Your task to perform on an android device: Open the calendar and show me this week's events? Image 0: 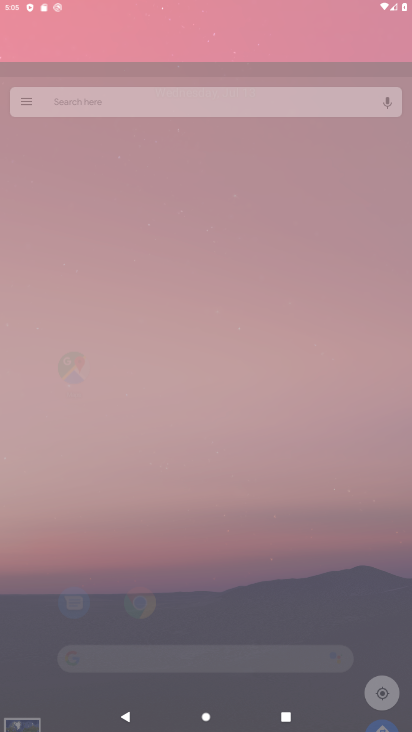
Step 0: press back button
Your task to perform on an android device: Open the calendar and show me this week's events? Image 1: 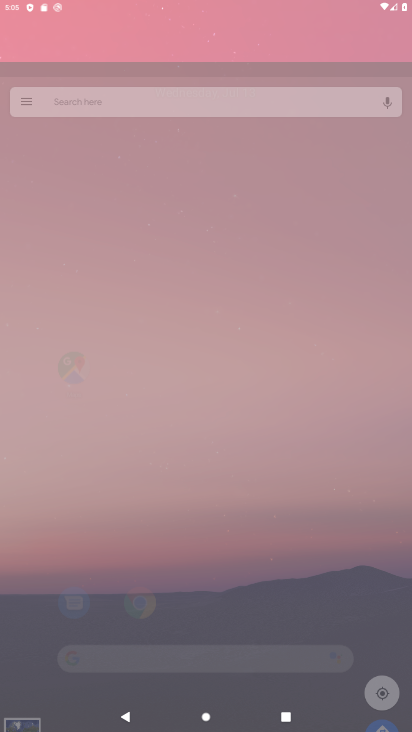
Step 1: press home button
Your task to perform on an android device: Open the calendar and show me this week's events? Image 2: 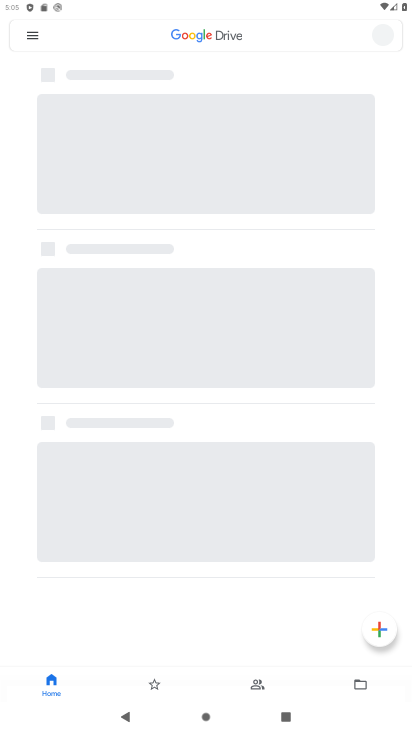
Step 2: click (160, 68)
Your task to perform on an android device: Open the calendar and show me this week's events? Image 3: 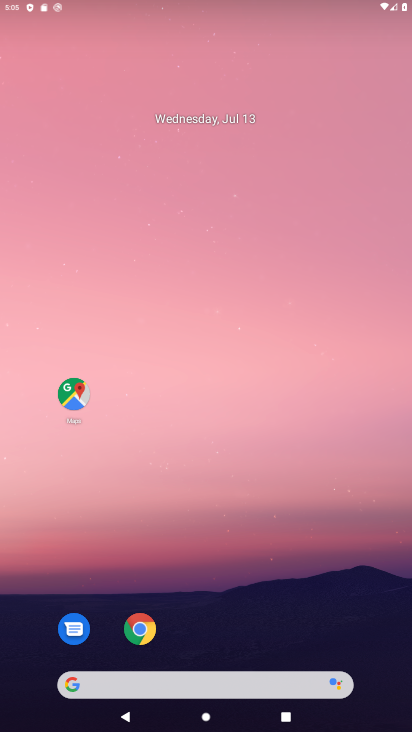
Step 3: press home button
Your task to perform on an android device: Open the calendar and show me this week's events? Image 4: 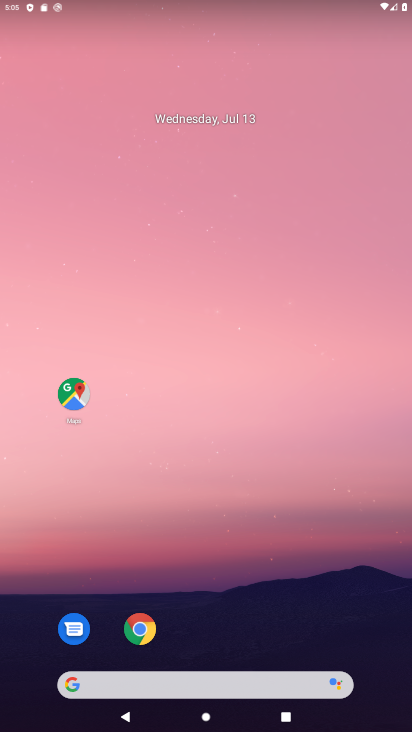
Step 4: press back button
Your task to perform on an android device: Open the calendar and show me this week's events? Image 5: 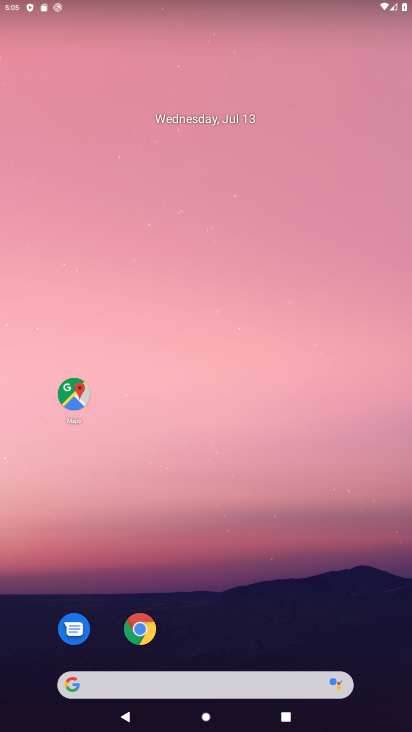
Step 5: drag from (228, 674) to (161, 281)
Your task to perform on an android device: Open the calendar and show me this week's events? Image 6: 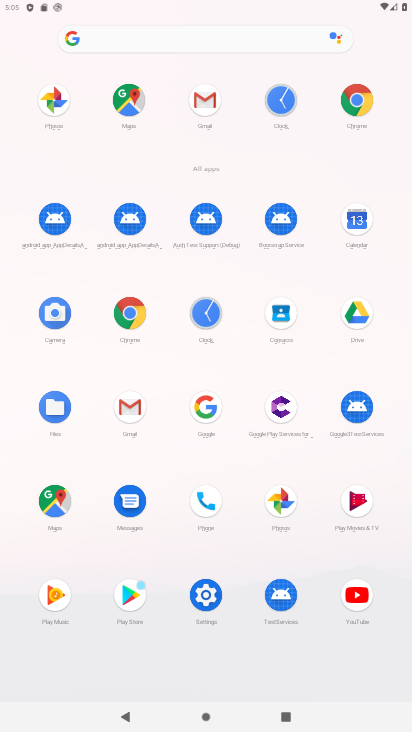
Step 6: click (361, 225)
Your task to perform on an android device: Open the calendar and show me this week's events? Image 7: 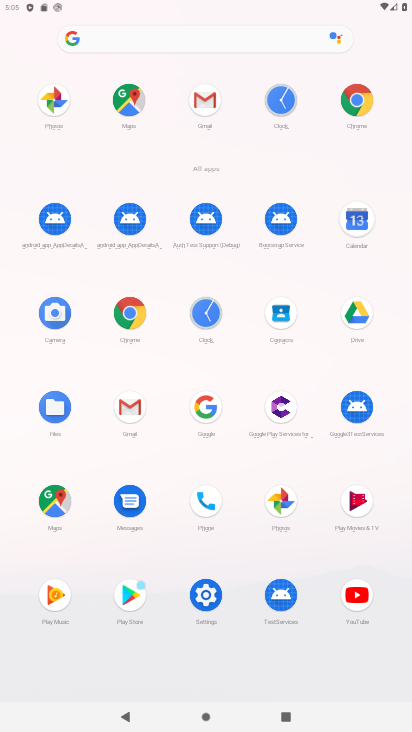
Step 7: click (361, 225)
Your task to perform on an android device: Open the calendar and show me this week's events? Image 8: 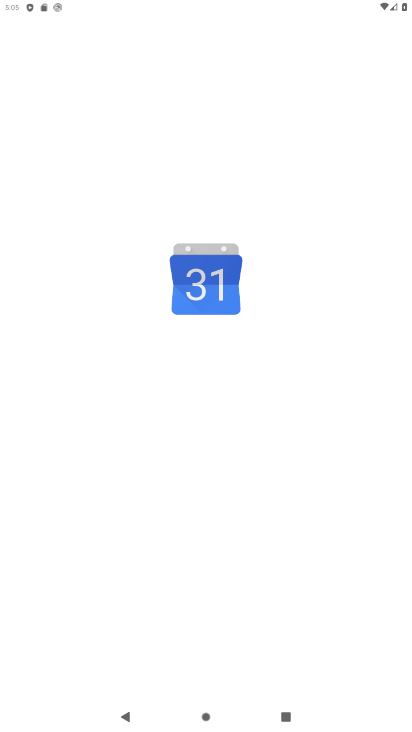
Step 8: click (362, 219)
Your task to perform on an android device: Open the calendar and show me this week's events? Image 9: 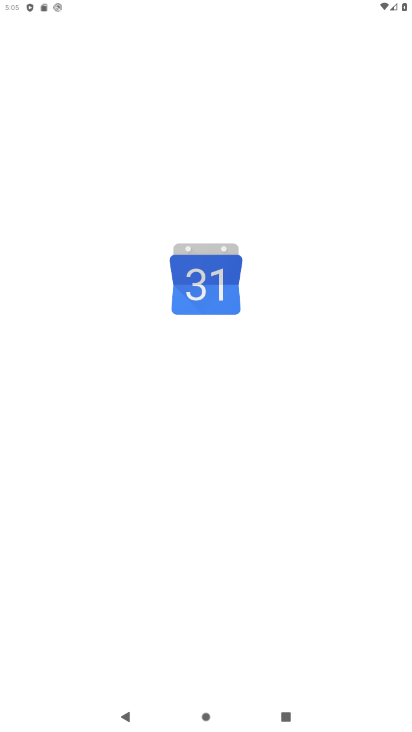
Step 9: click (359, 218)
Your task to perform on an android device: Open the calendar and show me this week's events? Image 10: 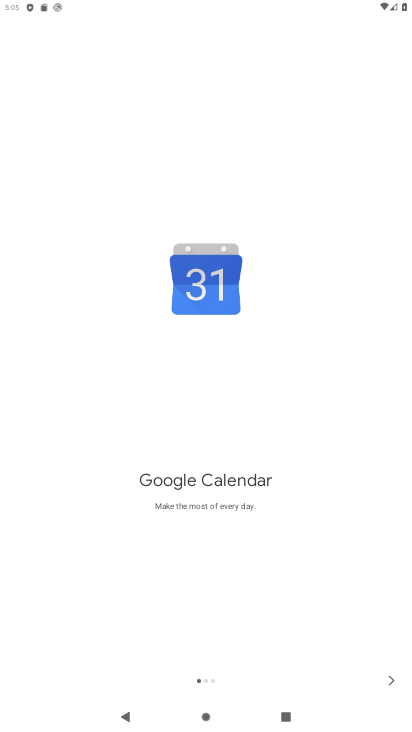
Step 10: click (388, 677)
Your task to perform on an android device: Open the calendar and show me this week's events? Image 11: 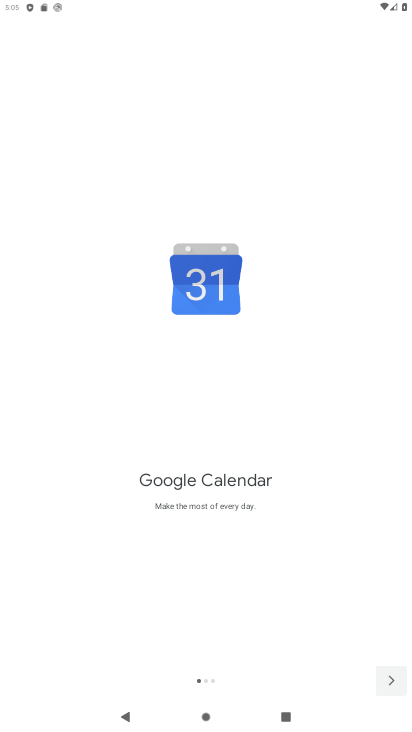
Step 11: click (388, 677)
Your task to perform on an android device: Open the calendar and show me this week's events? Image 12: 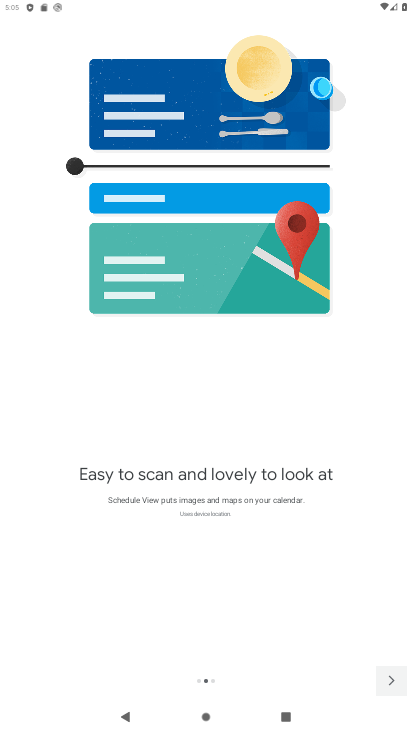
Step 12: click (389, 679)
Your task to perform on an android device: Open the calendar and show me this week's events? Image 13: 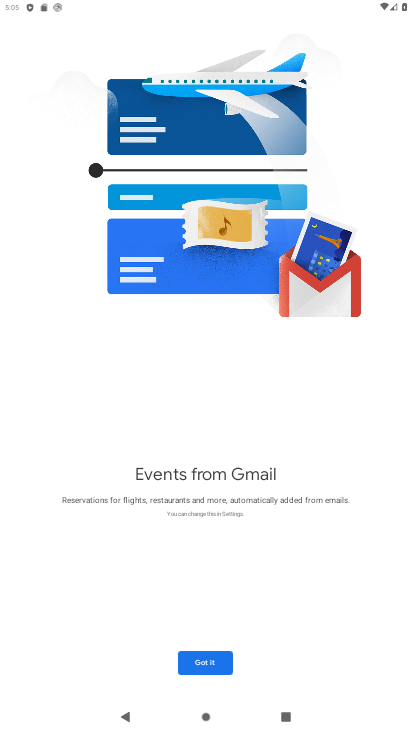
Step 13: click (395, 671)
Your task to perform on an android device: Open the calendar and show me this week's events? Image 14: 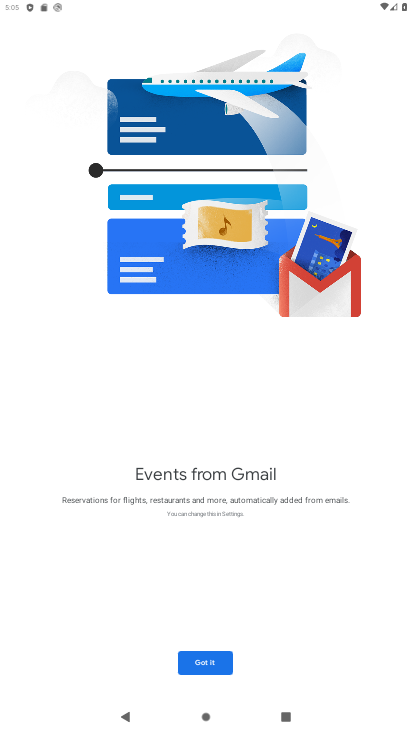
Step 14: click (357, 685)
Your task to perform on an android device: Open the calendar and show me this week's events? Image 15: 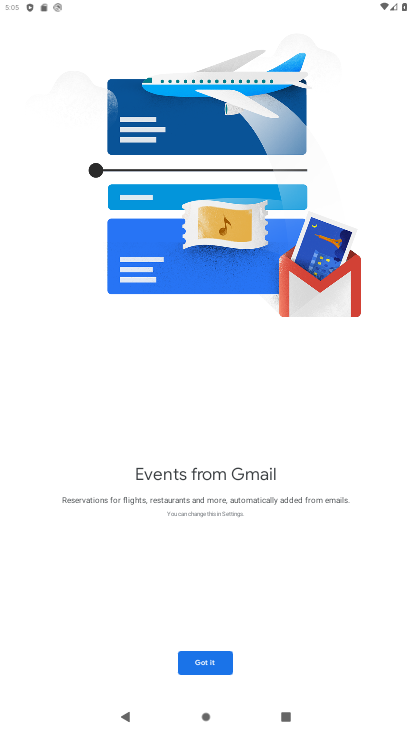
Step 15: click (212, 670)
Your task to perform on an android device: Open the calendar and show me this week's events? Image 16: 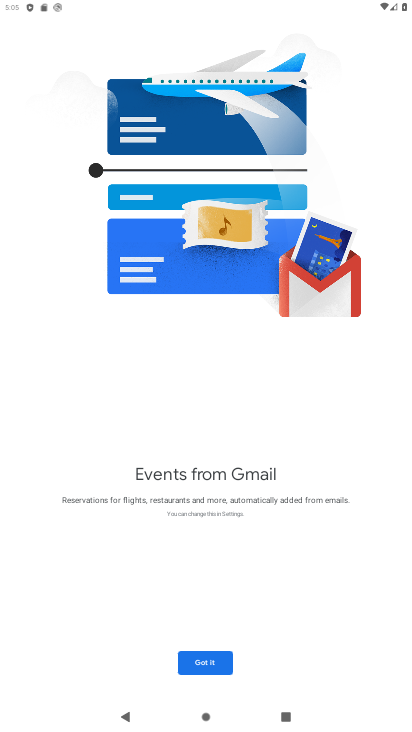
Step 16: click (216, 666)
Your task to perform on an android device: Open the calendar and show me this week's events? Image 17: 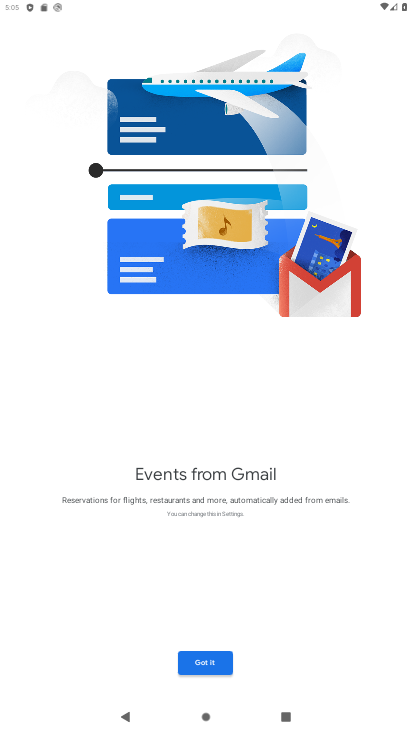
Step 17: click (221, 661)
Your task to perform on an android device: Open the calendar and show me this week's events? Image 18: 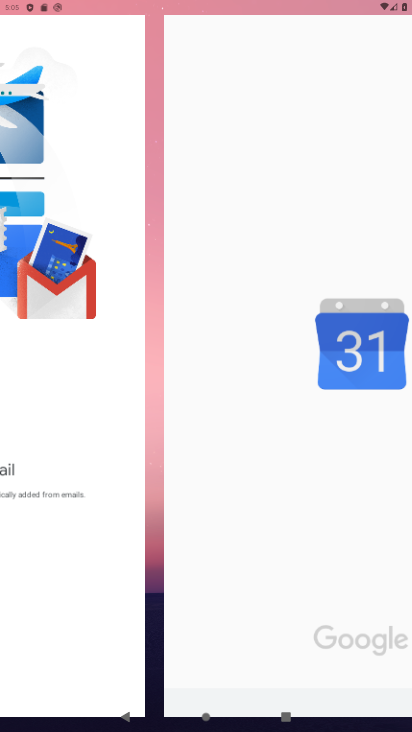
Step 18: click (221, 661)
Your task to perform on an android device: Open the calendar and show me this week's events? Image 19: 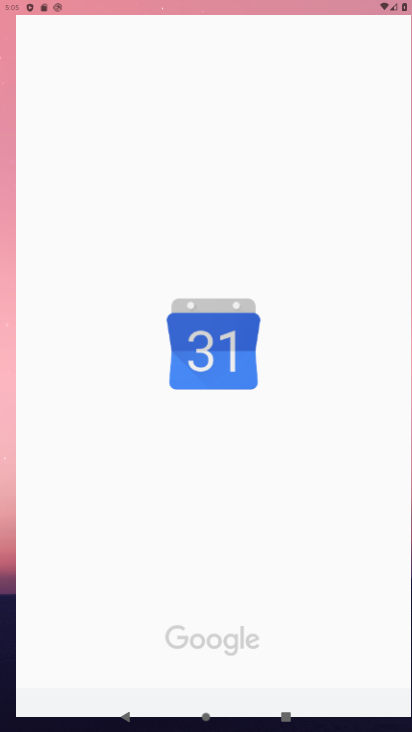
Step 19: click (221, 661)
Your task to perform on an android device: Open the calendar and show me this week's events? Image 20: 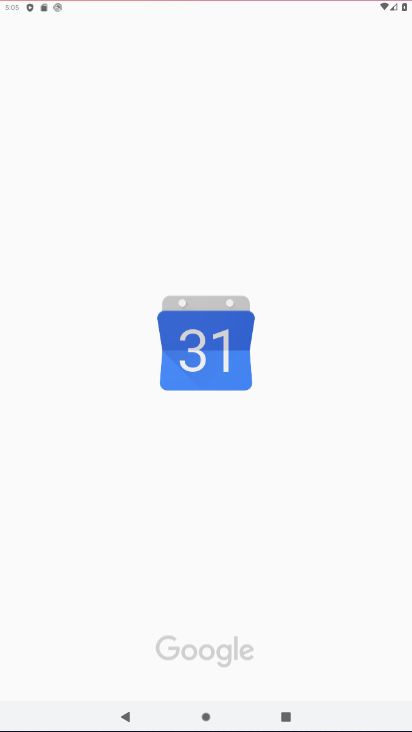
Step 20: click (221, 661)
Your task to perform on an android device: Open the calendar and show me this week's events? Image 21: 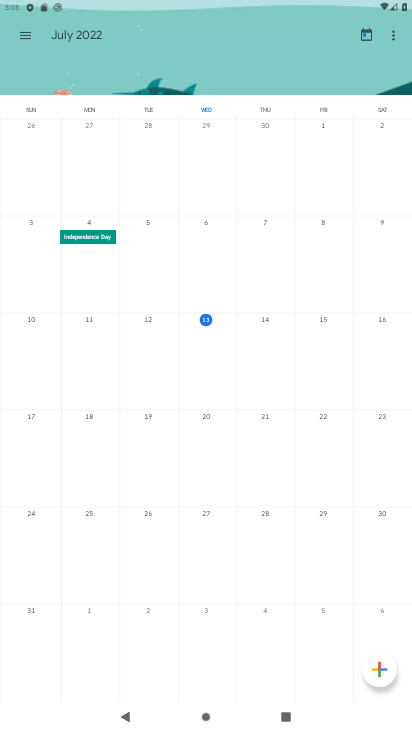
Step 21: click (315, 416)
Your task to perform on an android device: Open the calendar and show me this week's events? Image 22: 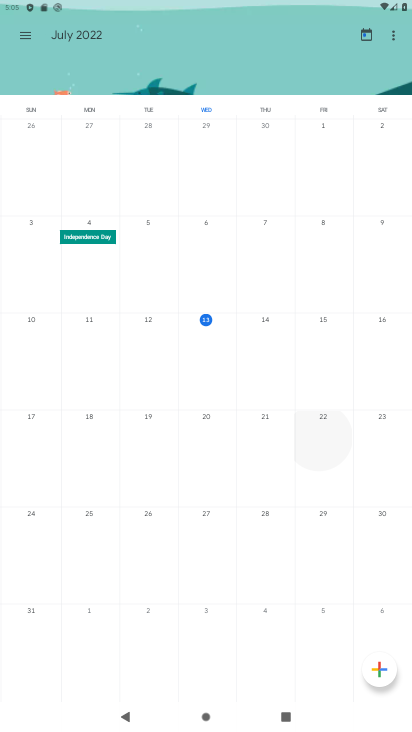
Step 22: task complete